Your task to perform on an android device: Toggle the flashlight Image 0: 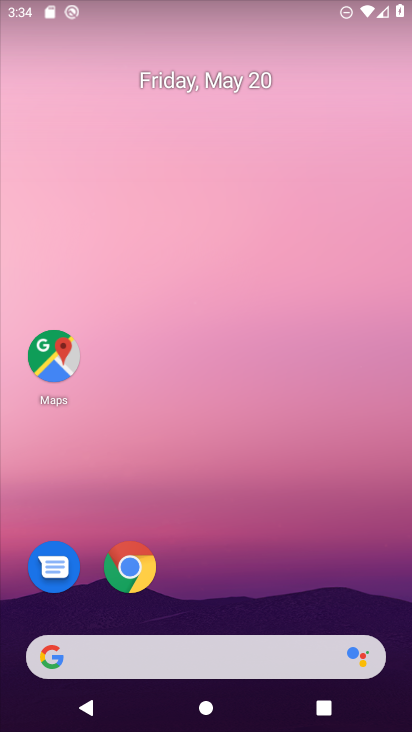
Step 0: drag from (238, 724) to (233, 71)
Your task to perform on an android device: Toggle the flashlight Image 1: 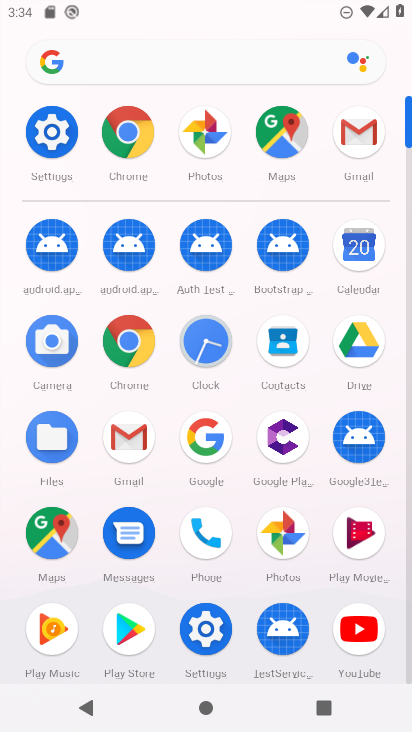
Step 1: click (51, 128)
Your task to perform on an android device: Toggle the flashlight Image 2: 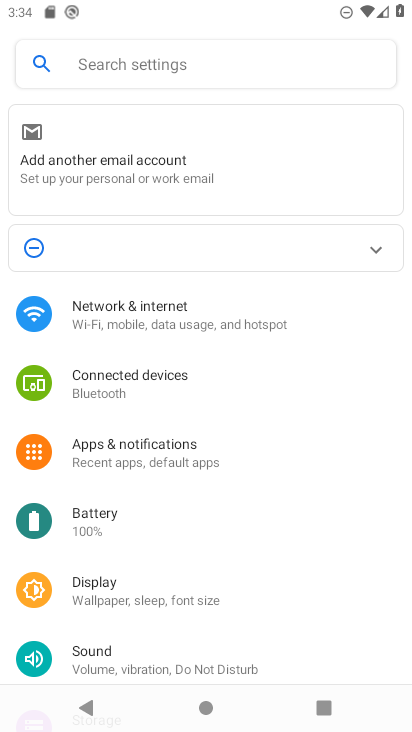
Step 2: task complete